Your task to perform on an android device: turn vacation reply on in the gmail app Image 0: 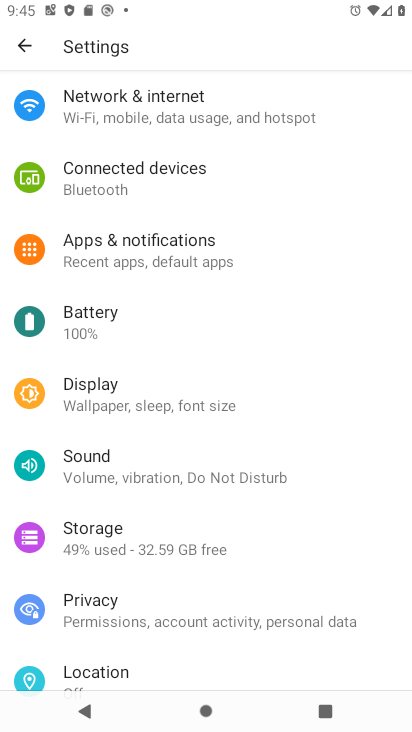
Step 0: press home button
Your task to perform on an android device: turn vacation reply on in the gmail app Image 1: 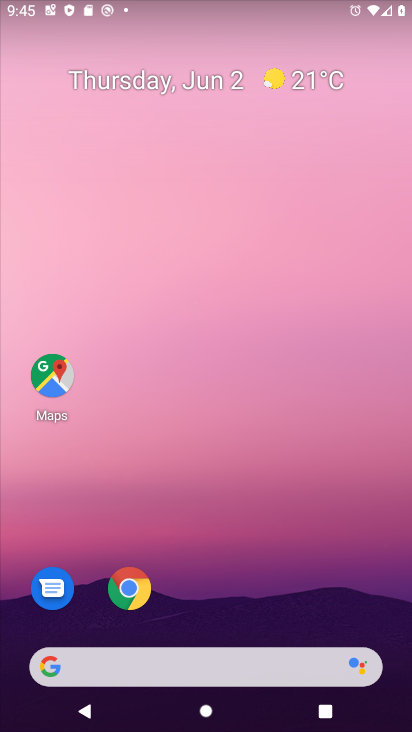
Step 1: drag from (223, 640) to (252, 110)
Your task to perform on an android device: turn vacation reply on in the gmail app Image 2: 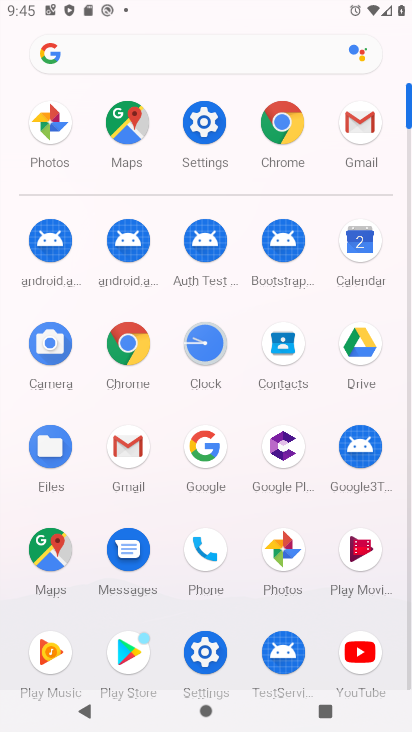
Step 2: click (124, 450)
Your task to perform on an android device: turn vacation reply on in the gmail app Image 3: 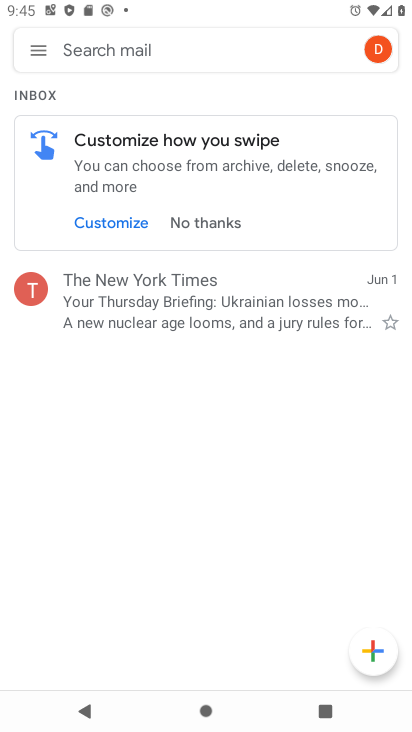
Step 3: click (50, 58)
Your task to perform on an android device: turn vacation reply on in the gmail app Image 4: 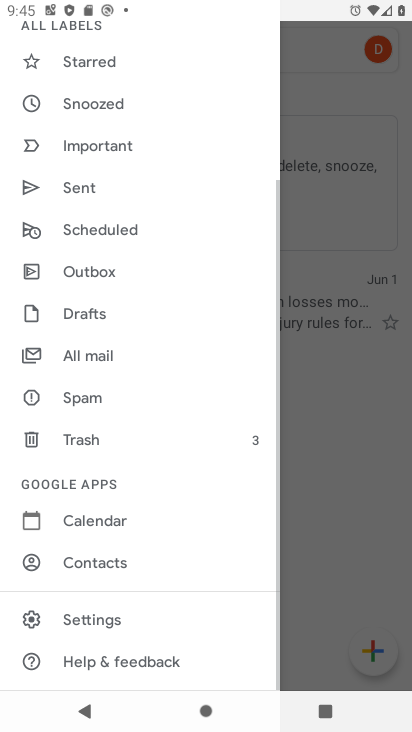
Step 4: click (103, 611)
Your task to perform on an android device: turn vacation reply on in the gmail app Image 5: 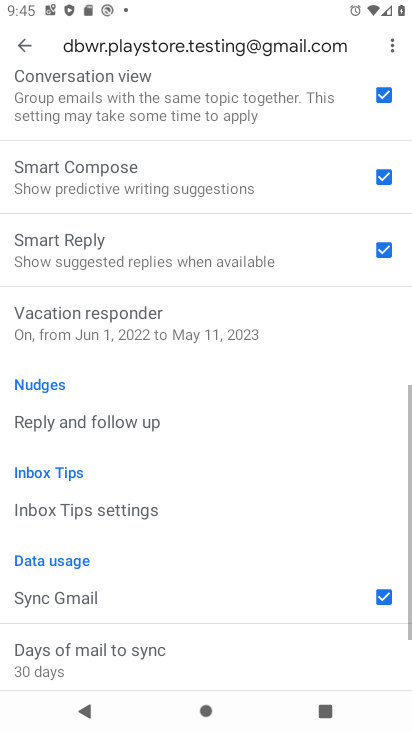
Step 5: drag from (165, 507) to (143, 103)
Your task to perform on an android device: turn vacation reply on in the gmail app Image 6: 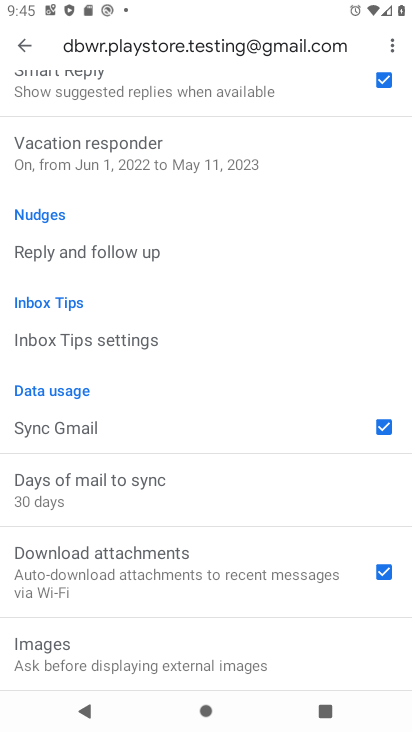
Step 6: drag from (188, 213) to (191, 427)
Your task to perform on an android device: turn vacation reply on in the gmail app Image 7: 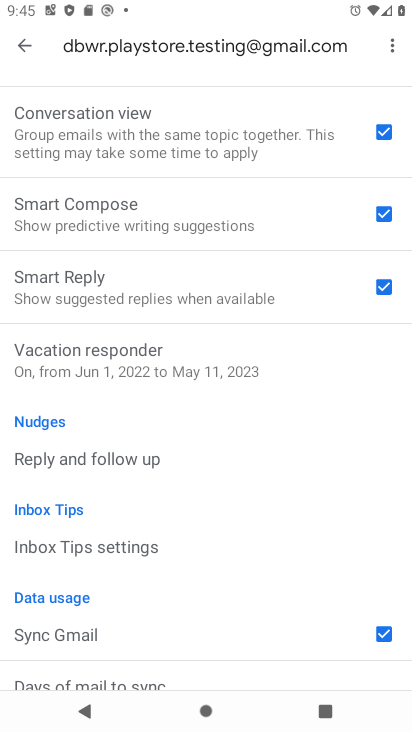
Step 7: click (77, 361)
Your task to perform on an android device: turn vacation reply on in the gmail app Image 8: 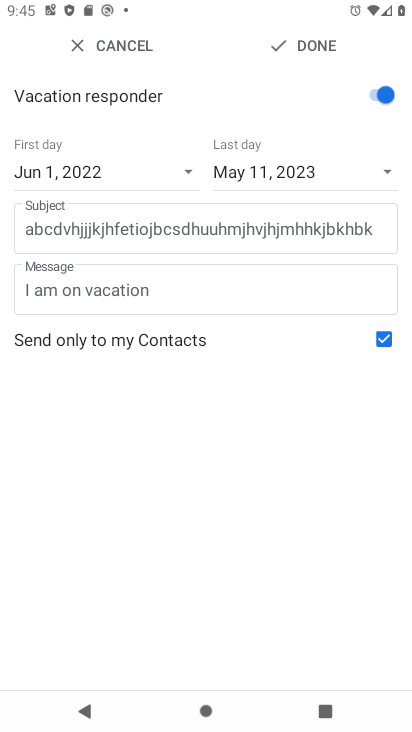
Step 8: click (304, 46)
Your task to perform on an android device: turn vacation reply on in the gmail app Image 9: 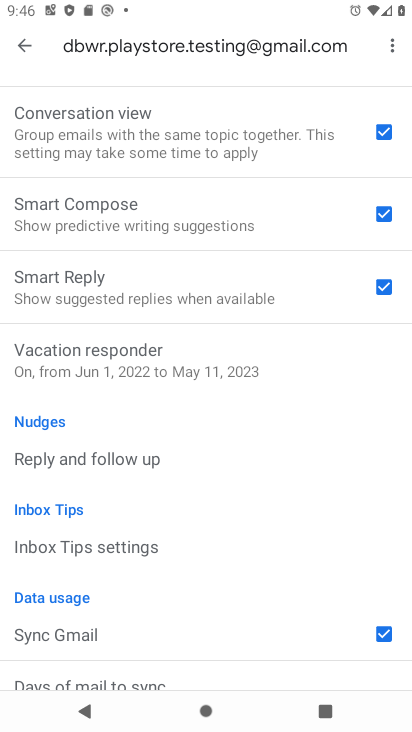
Step 9: task complete